Your task to perform on an android device: open device folders in google photos Image 0: 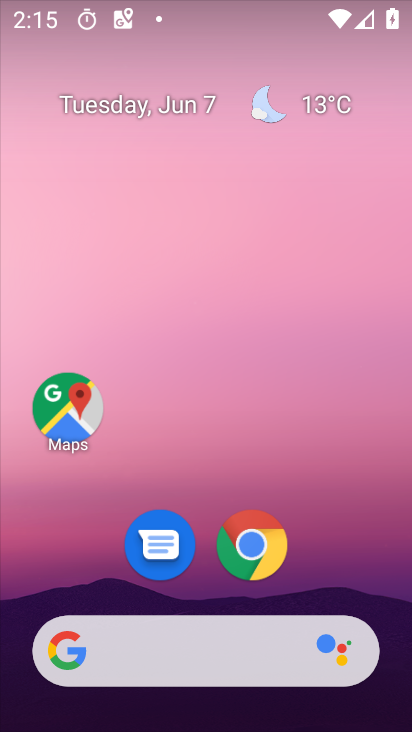
Step 0: drag from (343, 374) to (173, 16)
Your task to perform on an android device: open device folders in google photos Image 1: 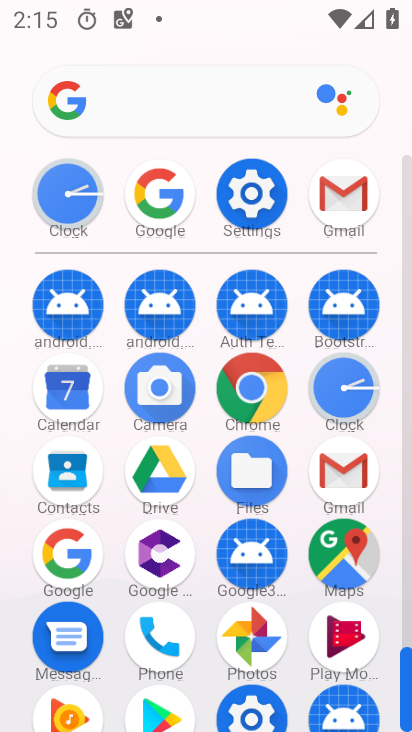
Step 1: click (254, 639)
Your task to perform on an android device: open device folders in google photos Image 2: 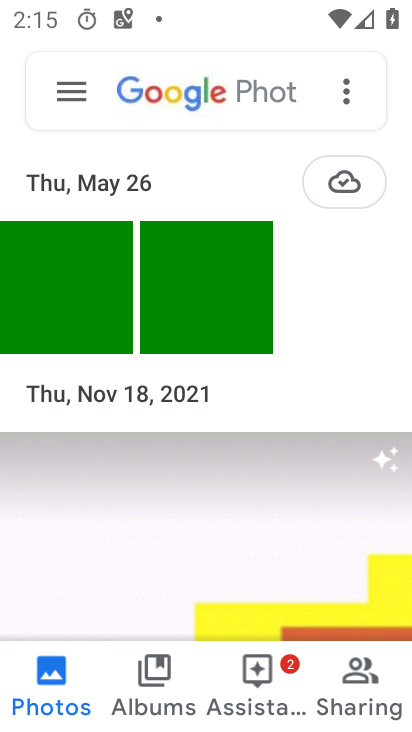
Step 2: click (77, 95)
Your task to perform on an android device: open device folders in google photos Image 3: 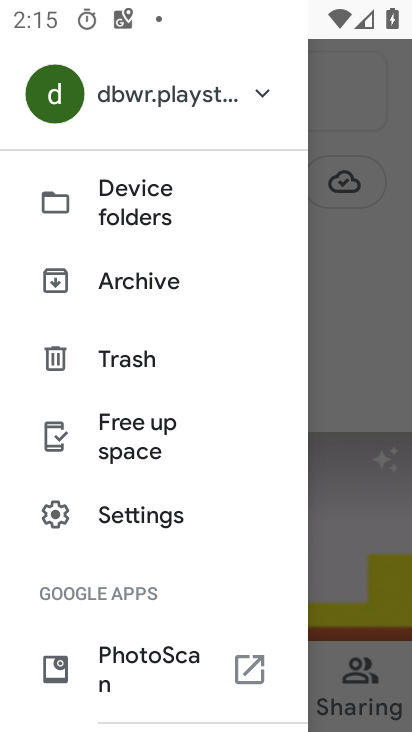
Step 3: click (158, 210)
Your task to perform on an android device: open device folders in google photos Image 4: 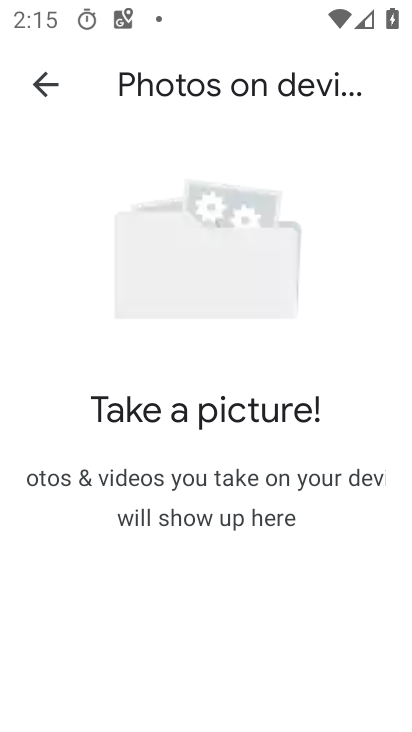
Step 4: task complete